Your task to perform on an android device: Search for "logitech g910" on walmart.com, select the first entry, and add it to the cart. Image 0: 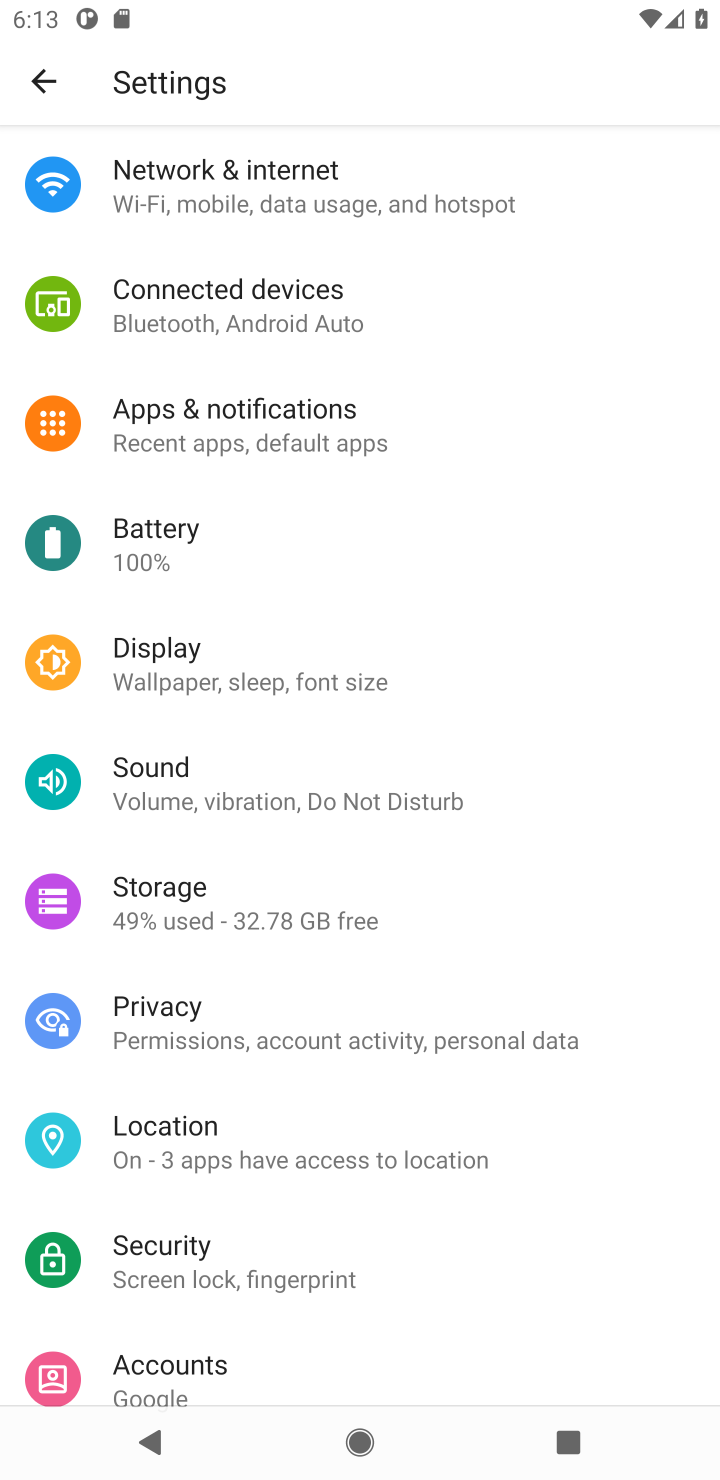
Step 0: press home button
Your task to perform on an android device: Search for "logitech g910" on walmart.com, select the first entry, and add it to the cart. Image 1: 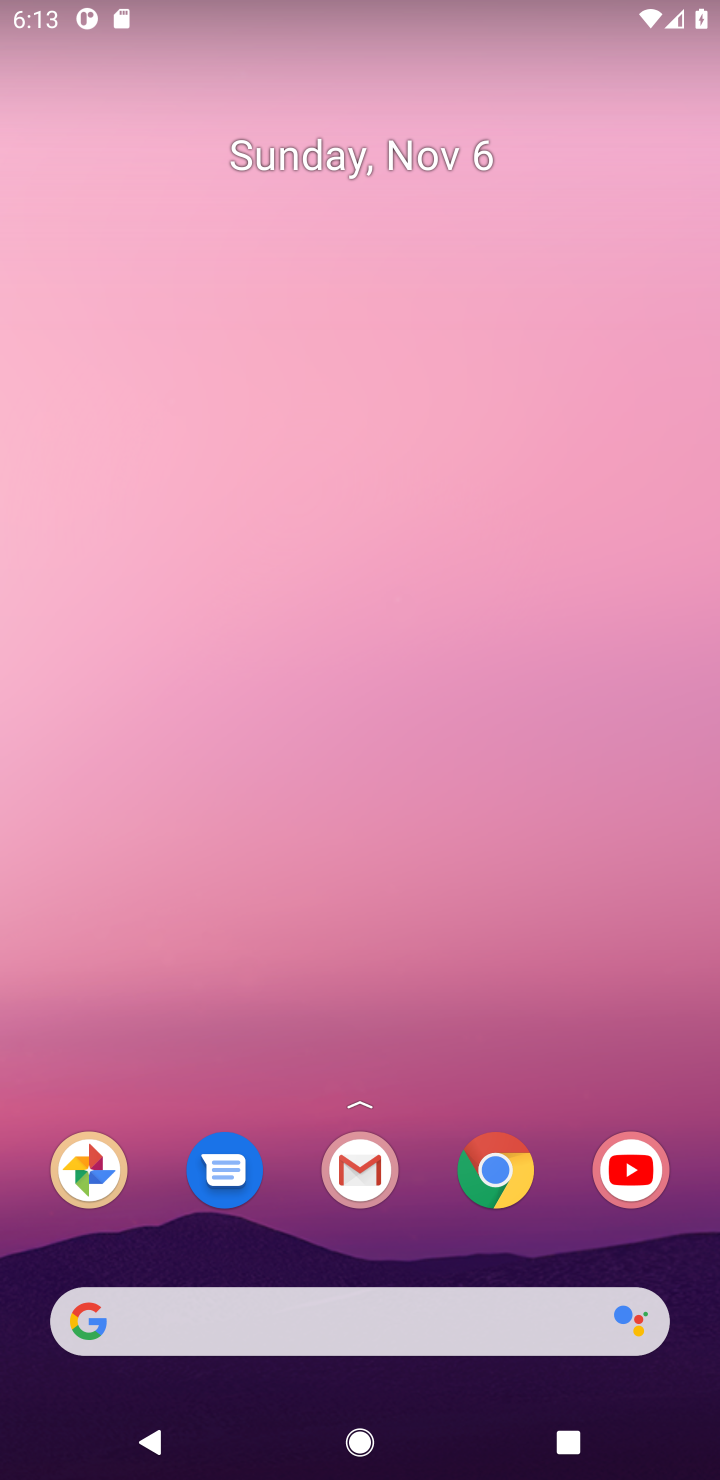
Step 1: click (497, 1194)
Your task to perform on an android device: Search for "logitech g910" on walmart.com, select the first entry, and add it to the cart. Image 2: 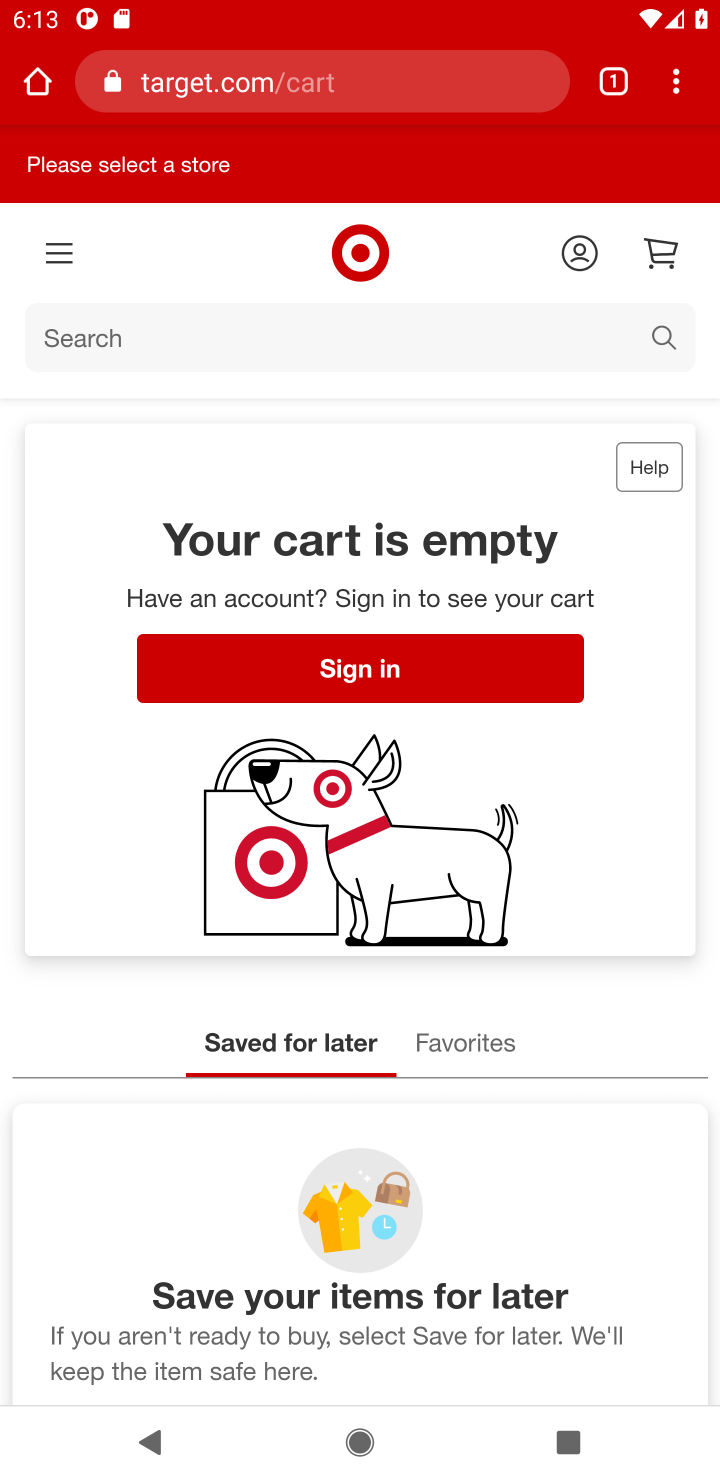
Step 2: click (343, 89)
Your task to perform on an android device: Search for "logitech g910" on walmart.com, select the first entry, and add it to the cart. Image 3: 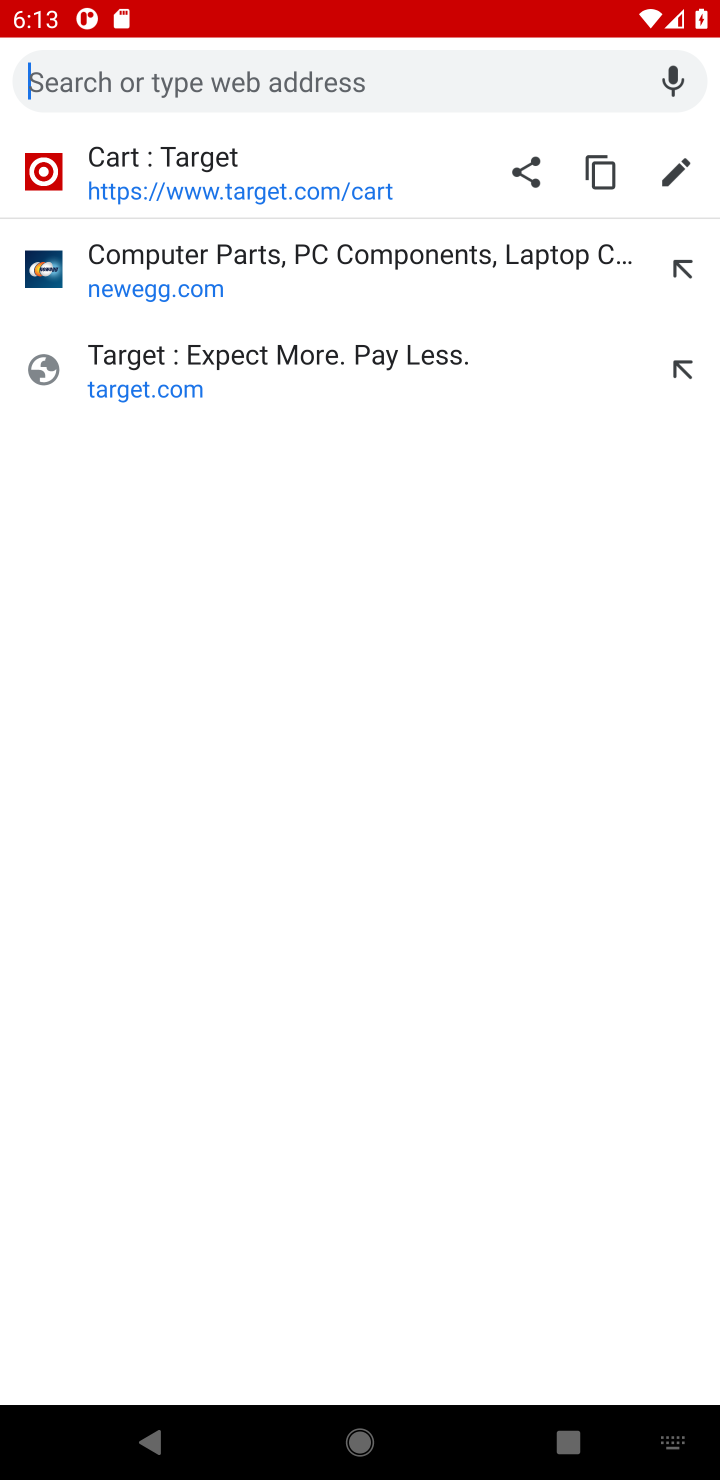
Step 3: type "walmart.com"
Your task to perform on an android device: Search for "logitech g910" on walmart.com, select the first entry, and add it to the cart. Image 4: 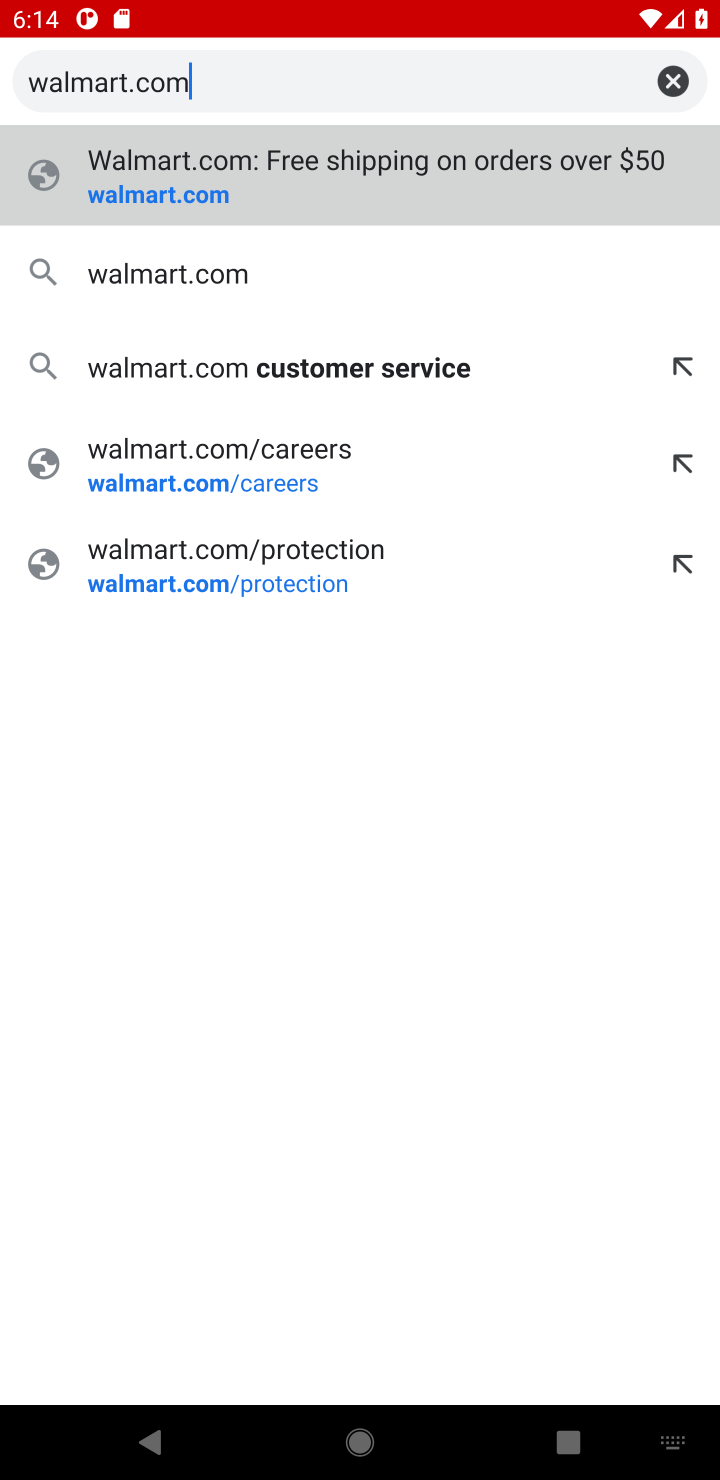
Step 4: click (378, 188)
Your task to perform on an android device: Search for "logitech g910" on walmart.com, select the first entry, and add it to the cart. Image 5: 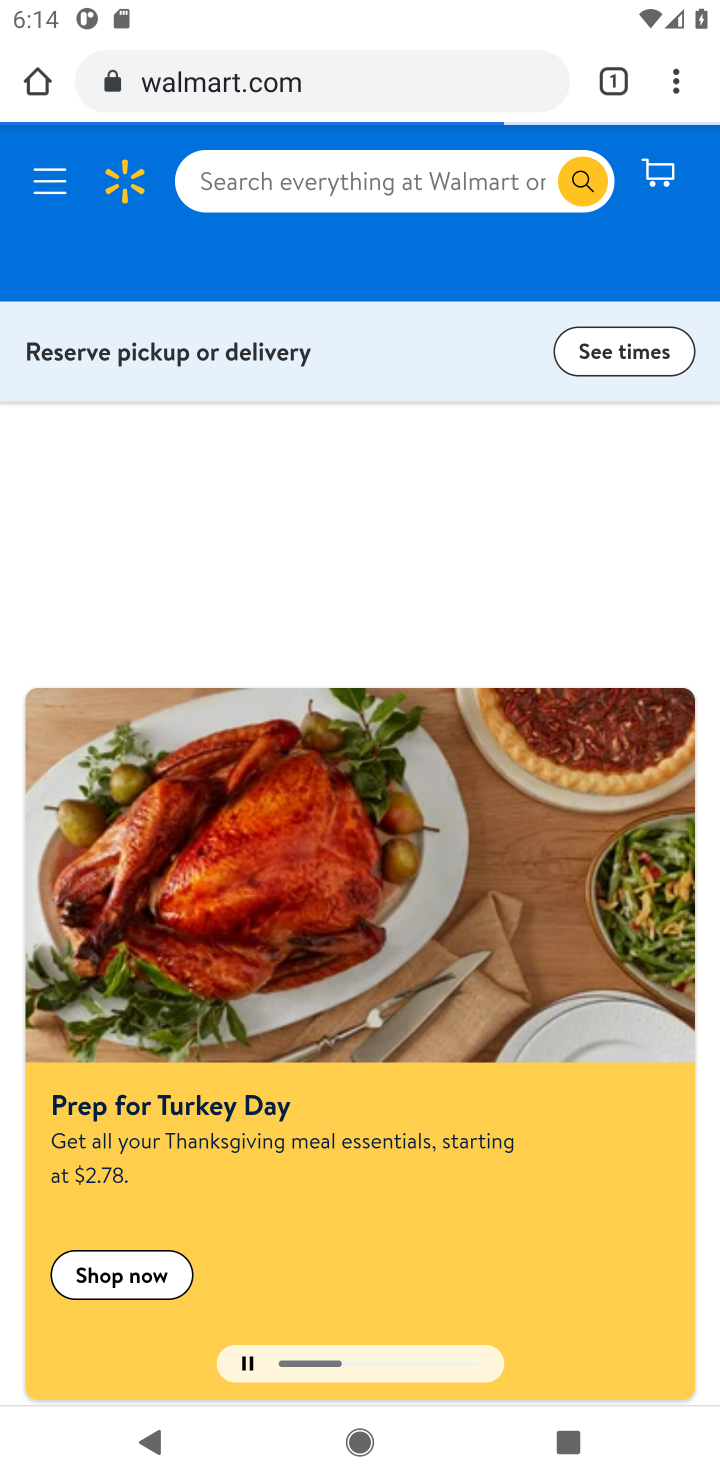
Step 5: click (378, 188)
Your task to perform on an android device: Search for "logitech g910" on walmart.com, select the first entry, and add it to the cart. Image 6: 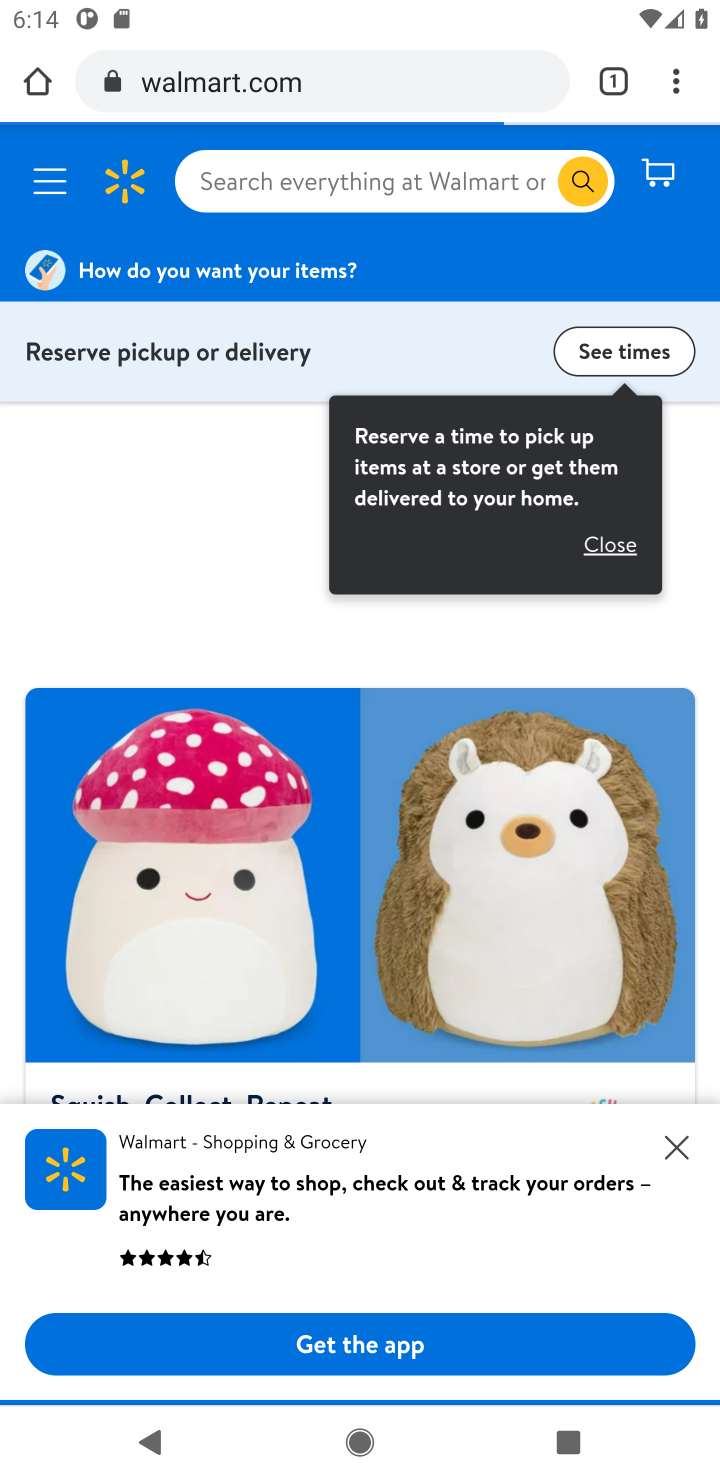
Step 6: click (378, 179)
Your task to perform on an android device: Search for "logitech g910" on walmart.com, select the first entry, and add it to the cart. Image 7: 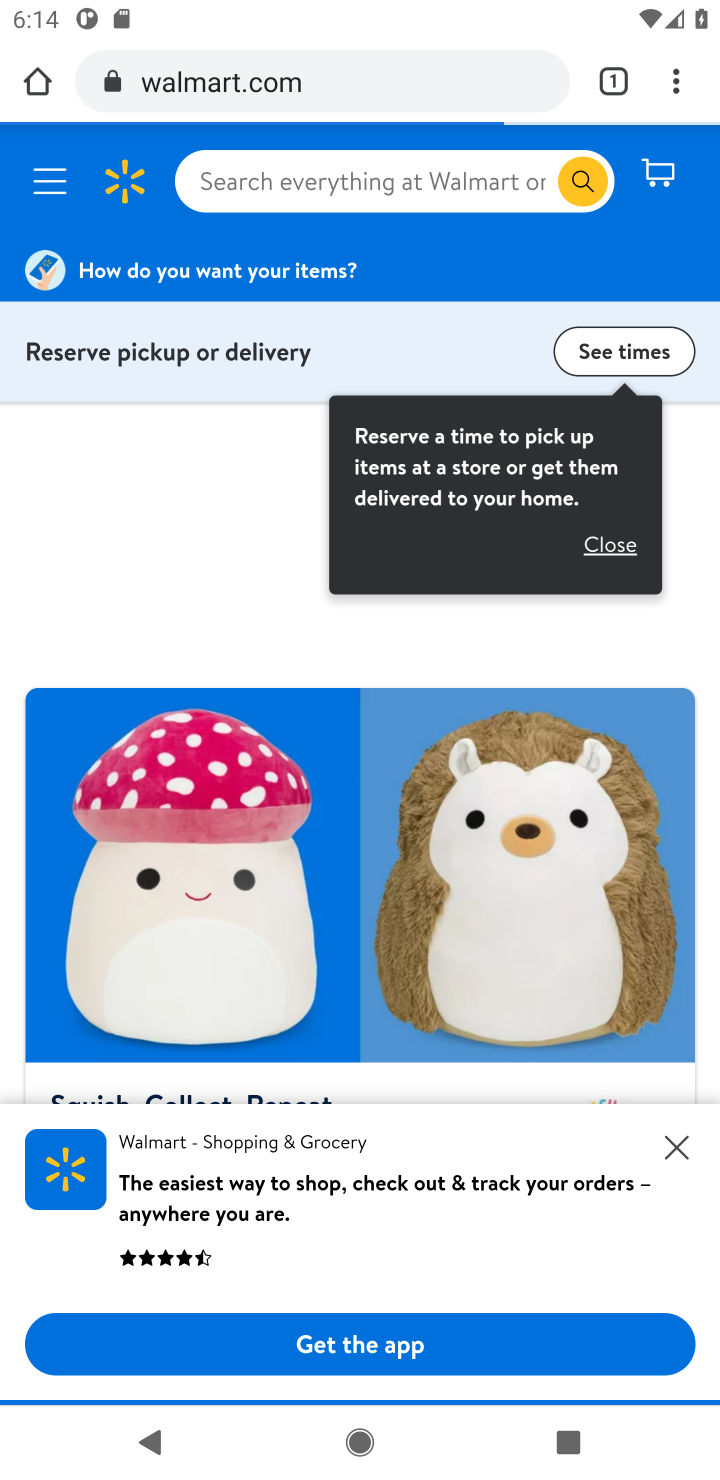
Step 7: click (287, 179)
Your task to perform on an android device: Search for "logitech g910" on walmart.com, select the first entry, and add it to the cart. Image 8: 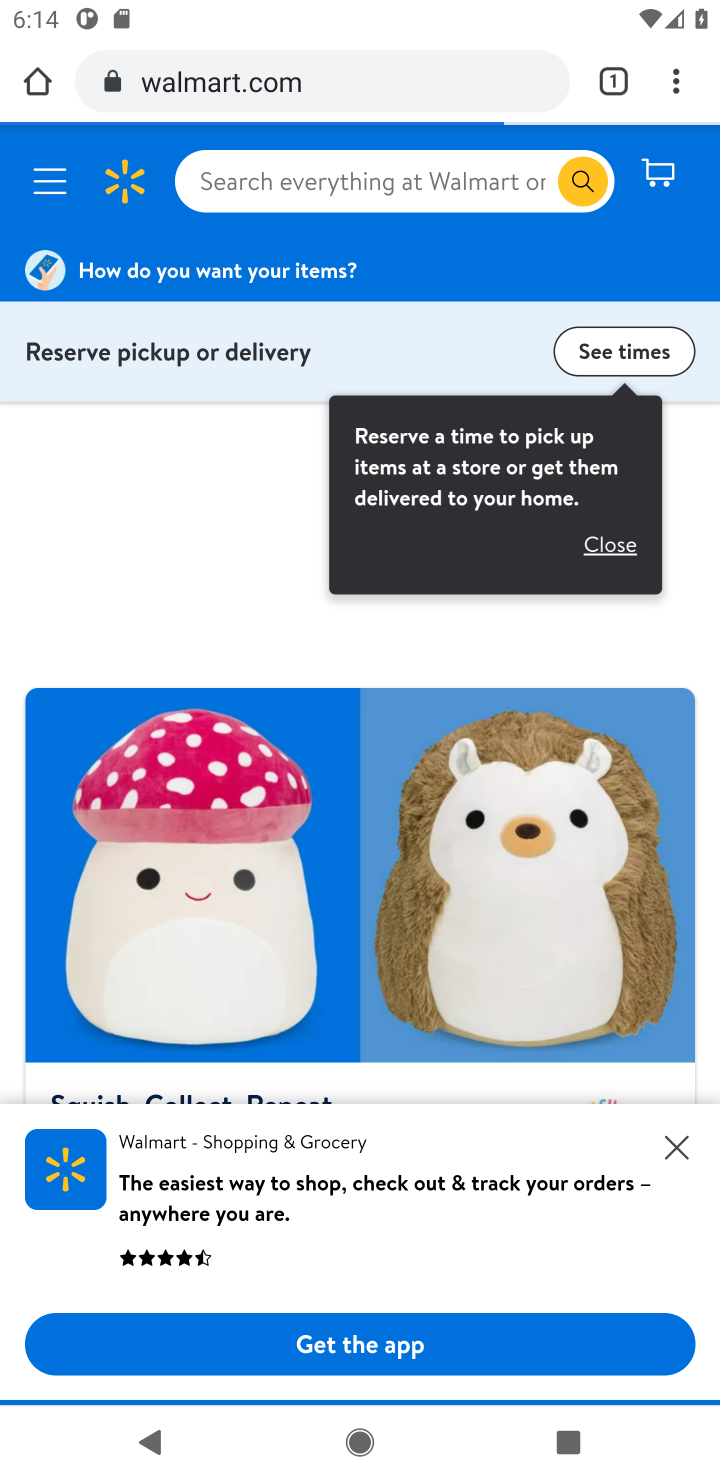
Step 8: click (683, 1146)
Your task to perform on an android device: Search for "logitech g910" on walmart.com, select the first entry, and add it to the cart. Image 9: 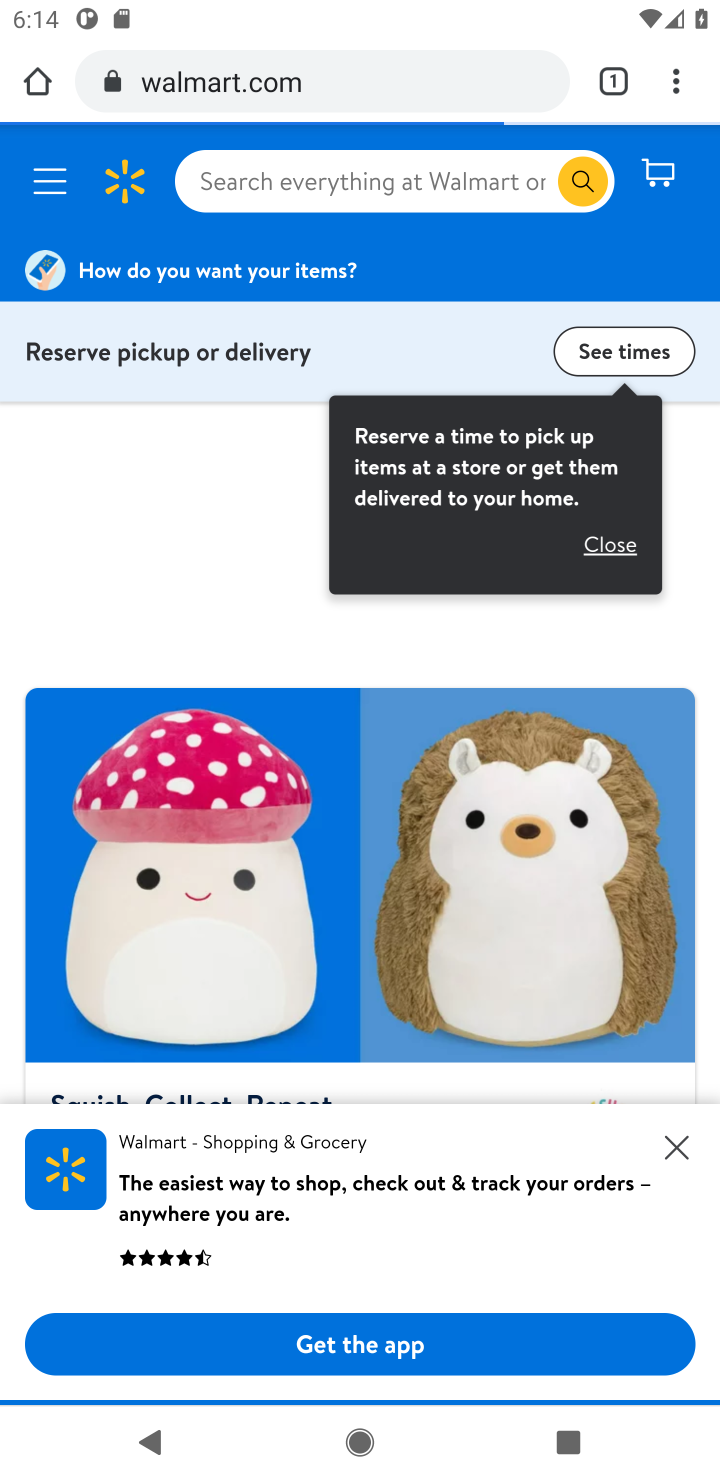
Step 9: click (675, 1143)
Your task to perform on an android device: Search for "logitech g910" on walmart.com, select the first entry, and add it to the cart. Image 10: 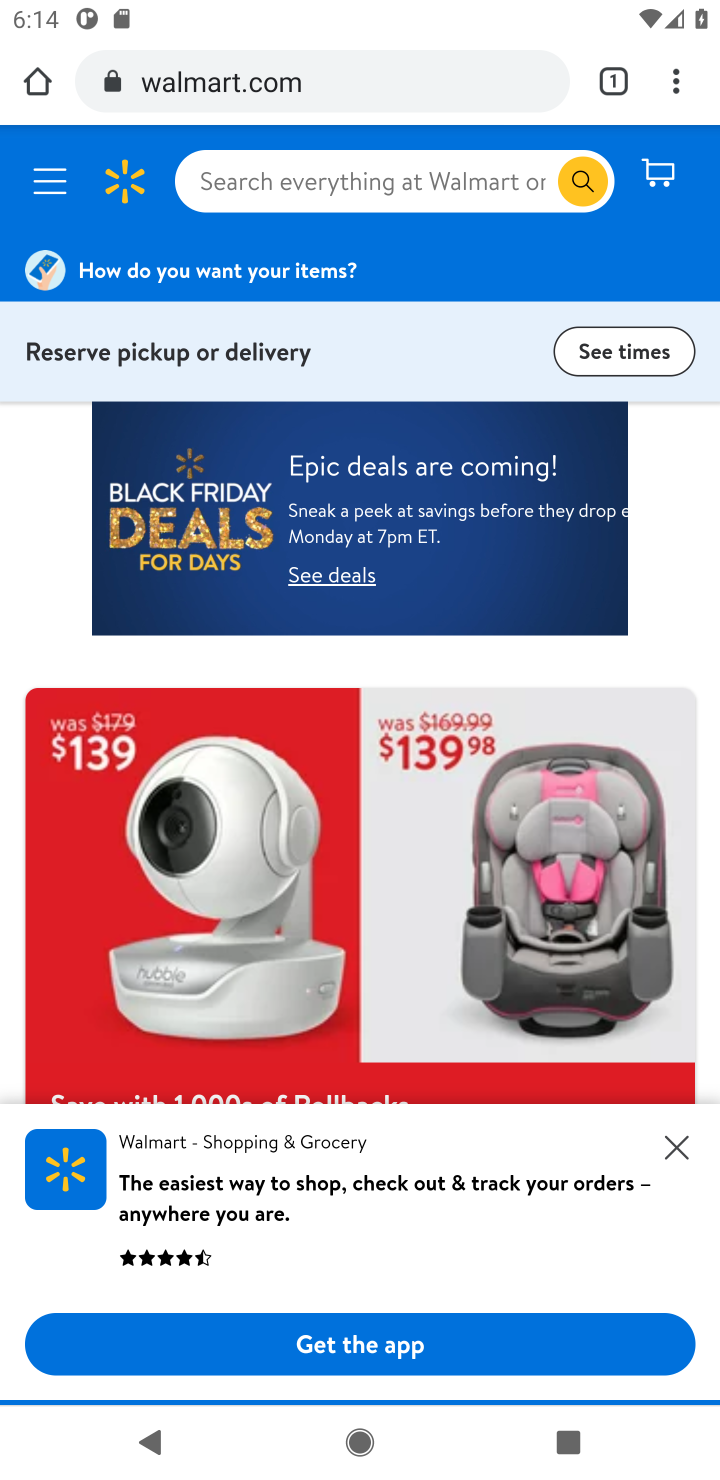
Step 10: click (401, 180)
Your task to perform on an android device: Search for "logitech g910" on walmart.com, select the first entry, and add it to the cart. Image 11: 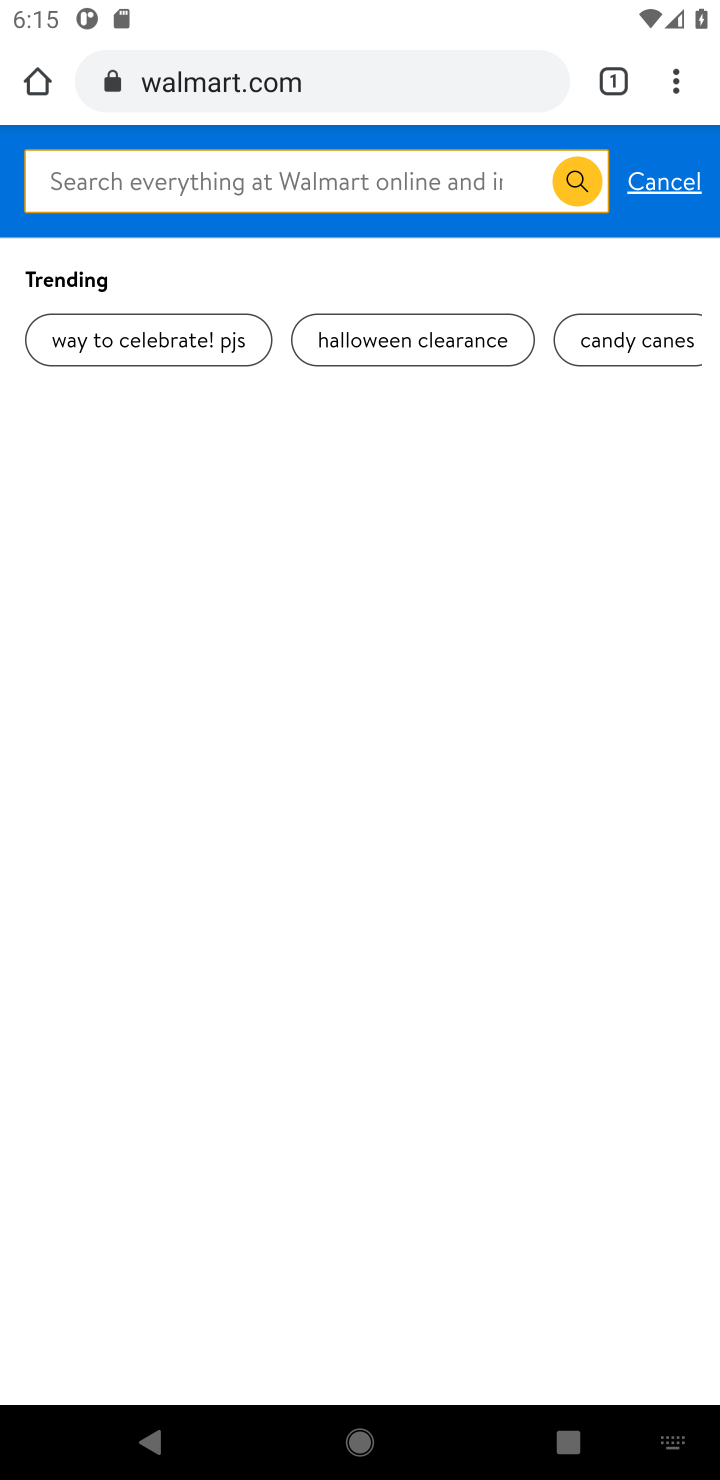
Step 11: type "logitech g910"
Your task to perform on an android device: Search for "logitech g910" on walmart.com, select the first entry, and add it to the cart. Image 12: 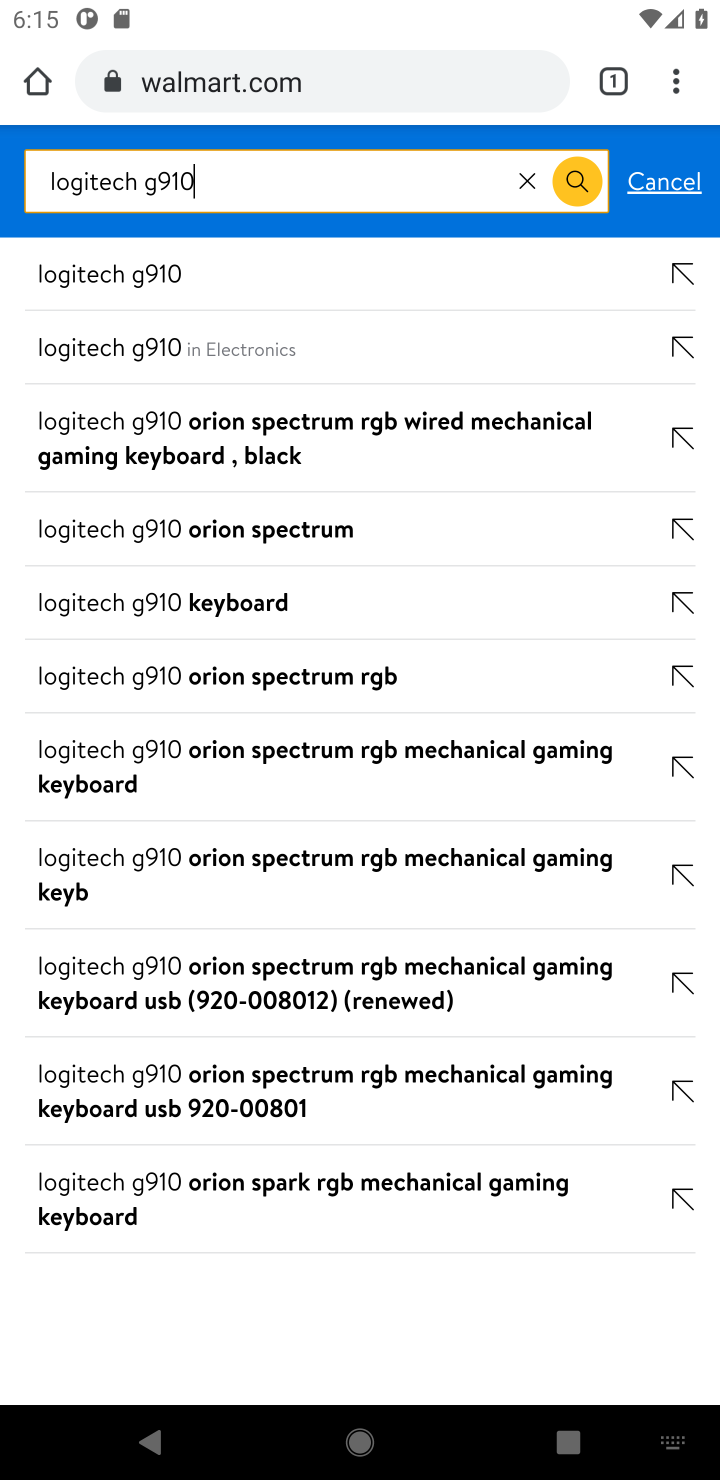
Step 12: click (149, 284)
Your task to perform on an android device: Search for "logitech g910" on walmart.com, select the first entry, and add it to the cart. Image 13: 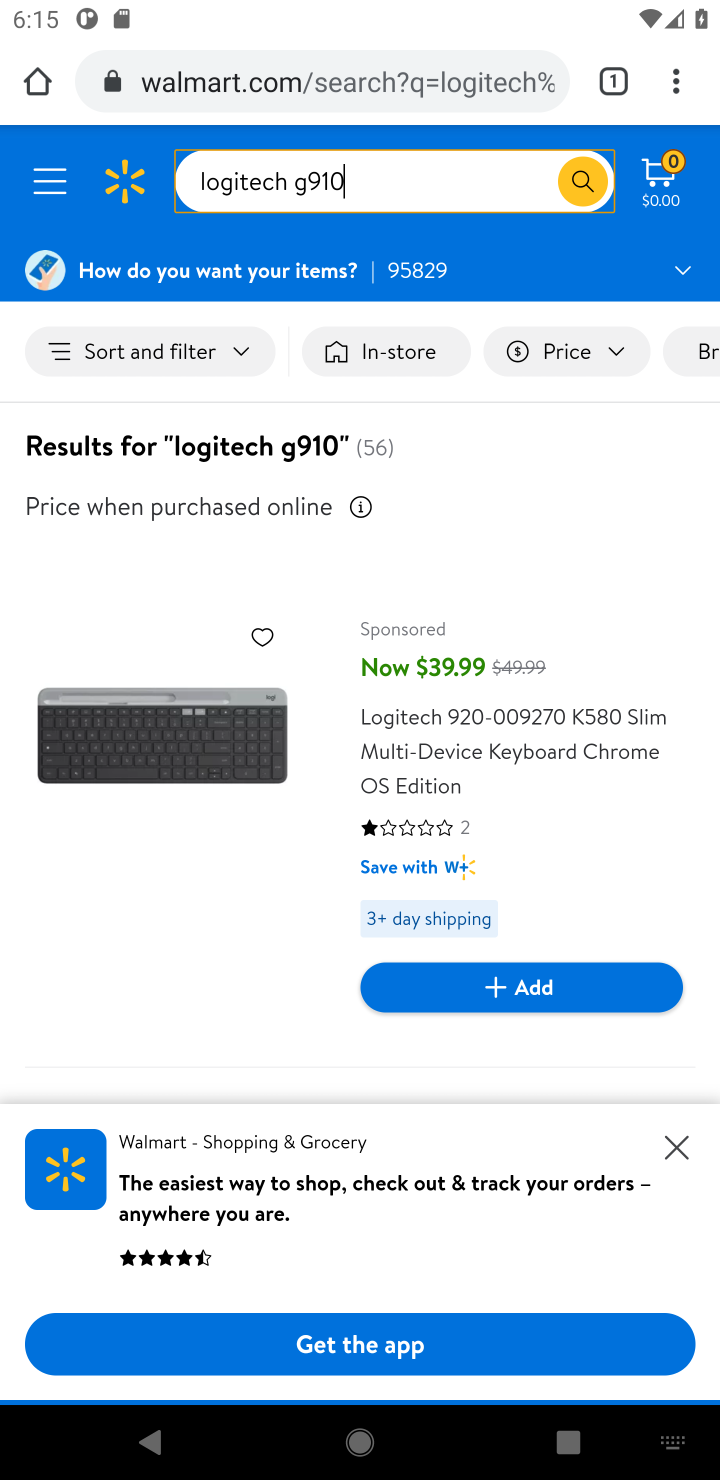
Step 13: drag from (570, 579) to (543, 281)
Your task to perform on an android device: Search for "logitech g910" on walmart.com, select the first entry, and add it to the cart. Image 14: 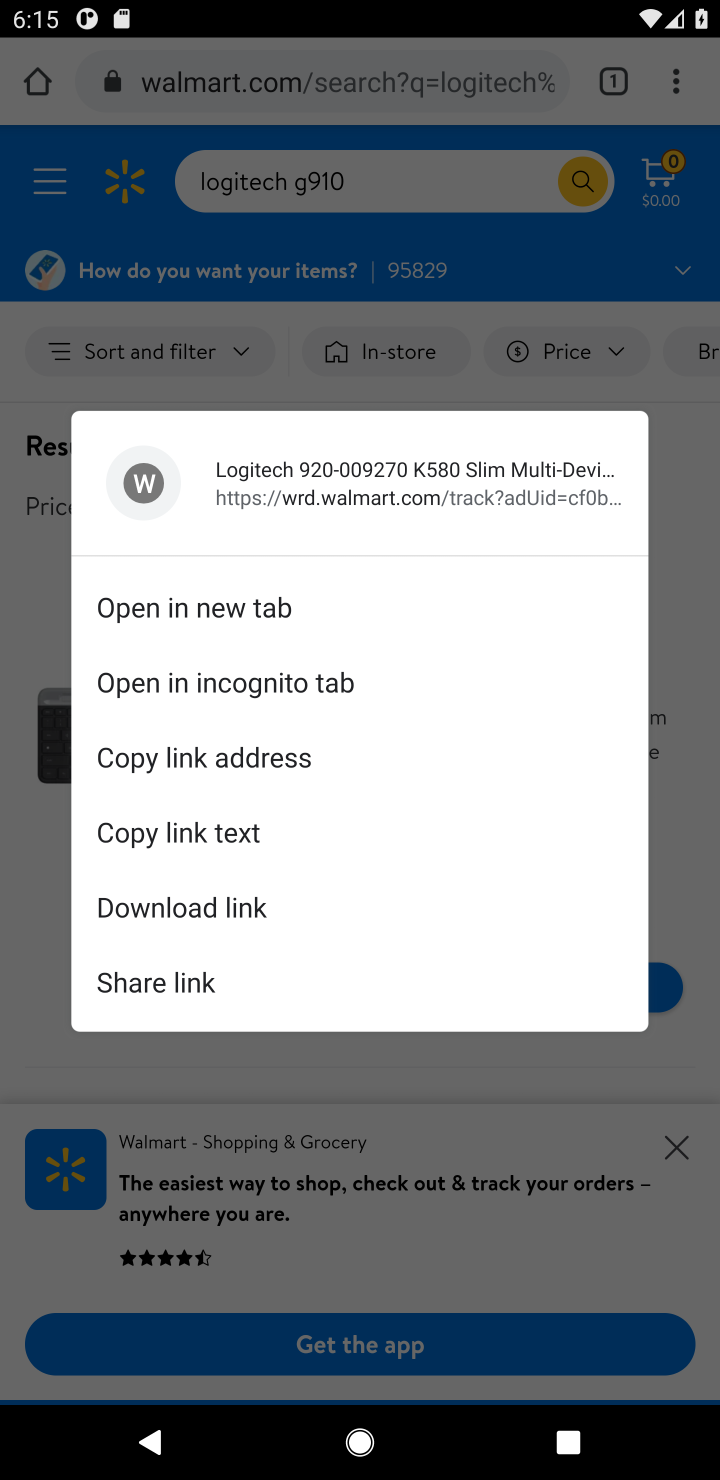
Step 14: click (676, 513)
Your task to perform on an android device: Search for "logitech g910" on walmart.com, select the first entry, and add it to the cart. Image 15: 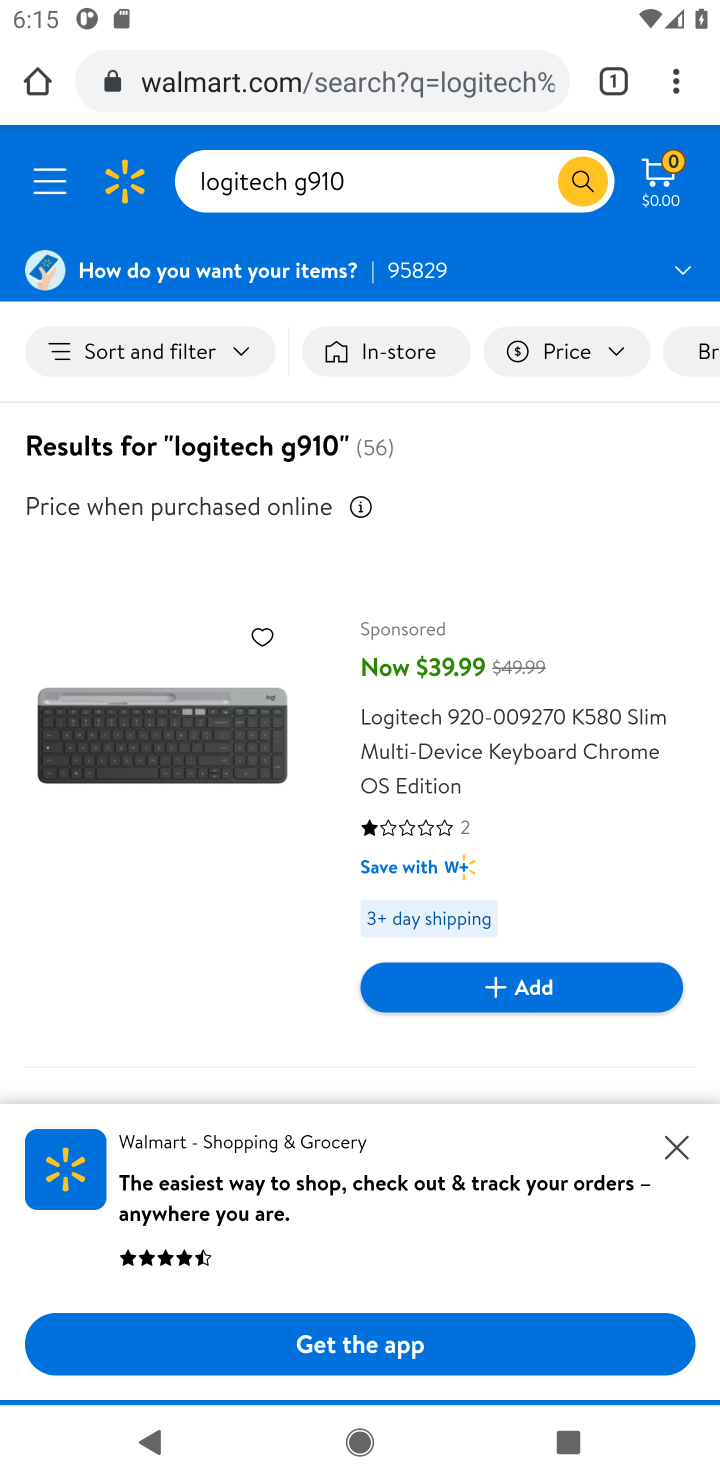
Step 15: drag from (493, 558) to (437, 196)
Your task to perform on an android device: Search for "logitech g910" on walmart.com, select the first entry, and add it to the cart. Image 16: 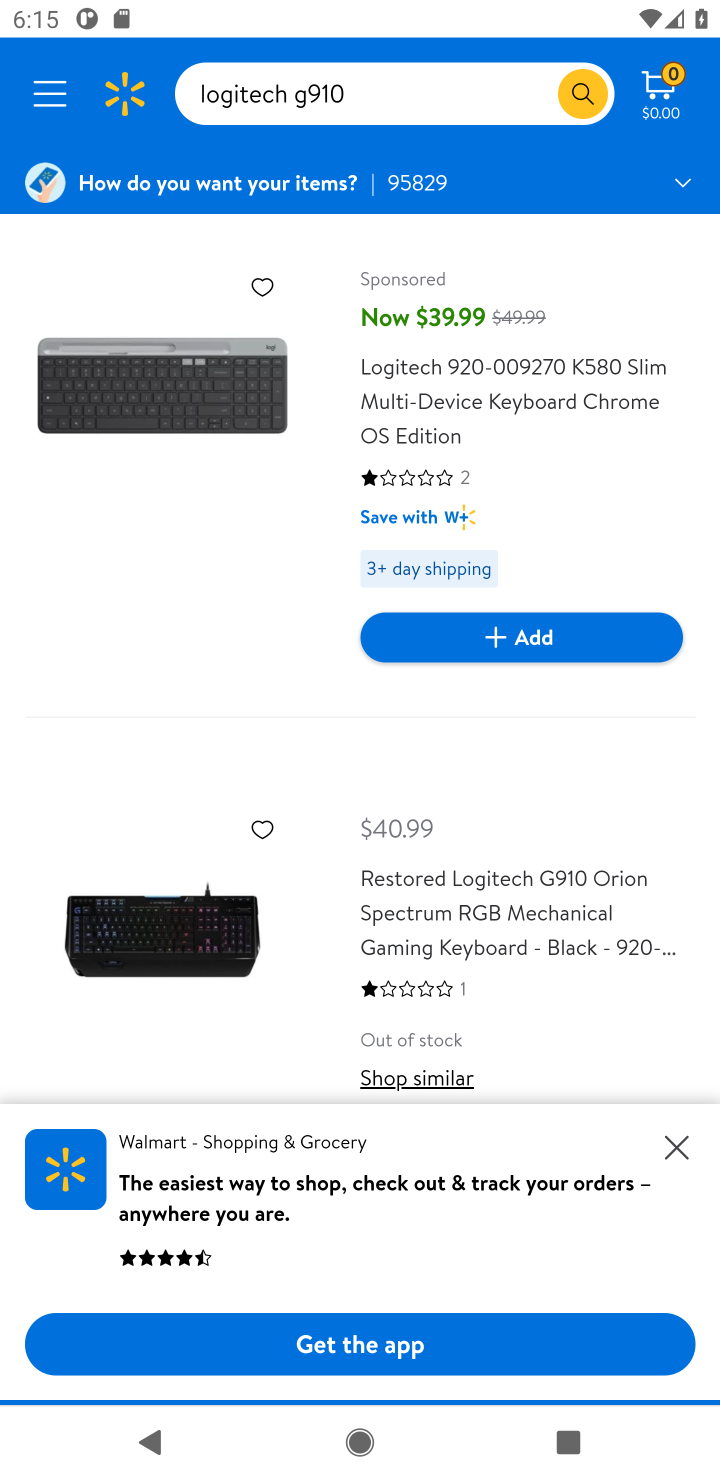
Step 16: click (191, 922)
Your task to perform on an android device: Search for "logitech g910" on walmart.com, select the first entry, and add it to the cart. Image 17: 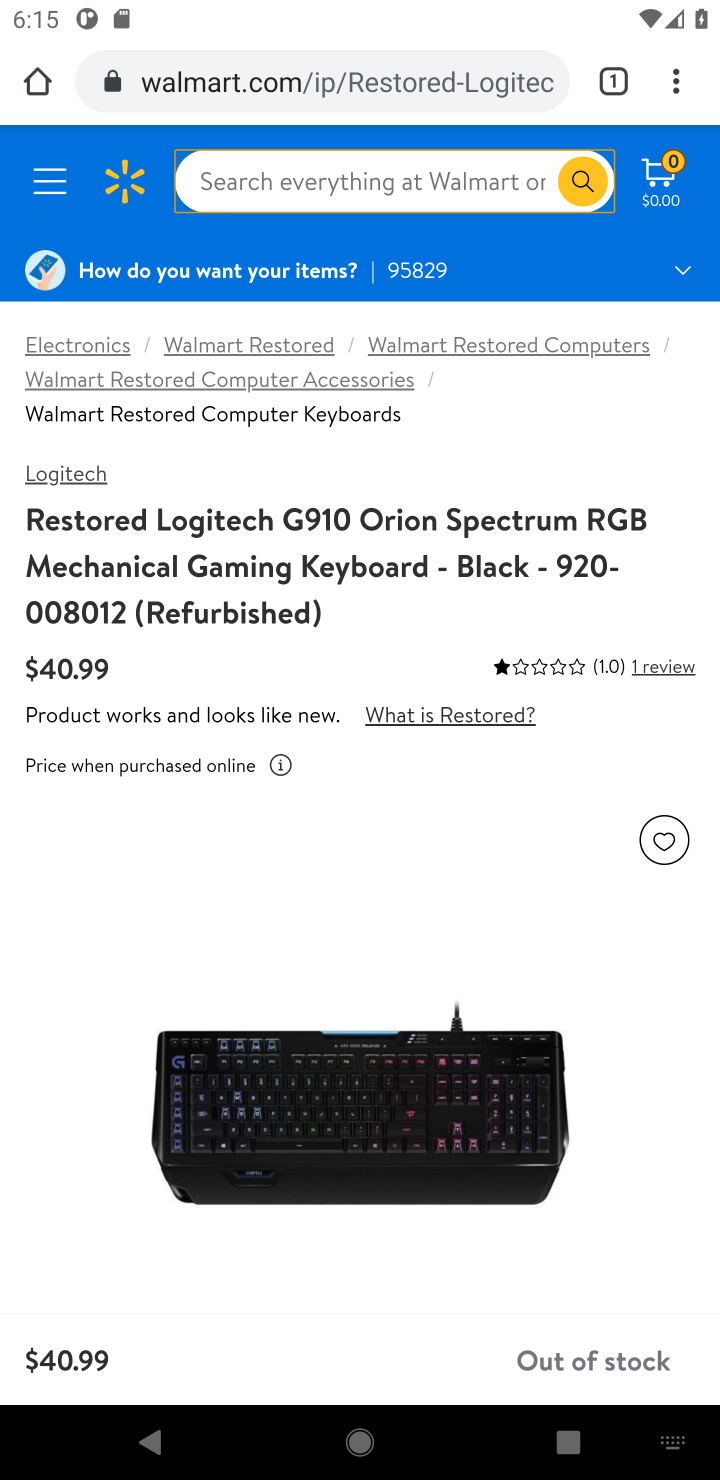
Step 17: task complete